Your task to perform on an android device: turn on sleep mode Image 0: 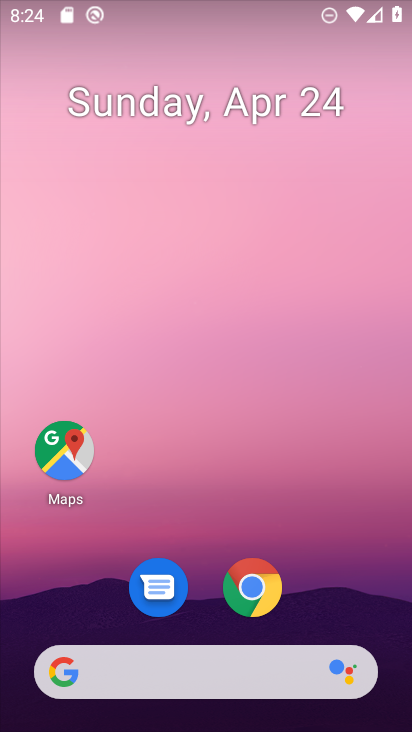
Step 0: drag from (354, 548) to (334, 255)
Your task to perform on an android device: turn on sleep mode Image 1: 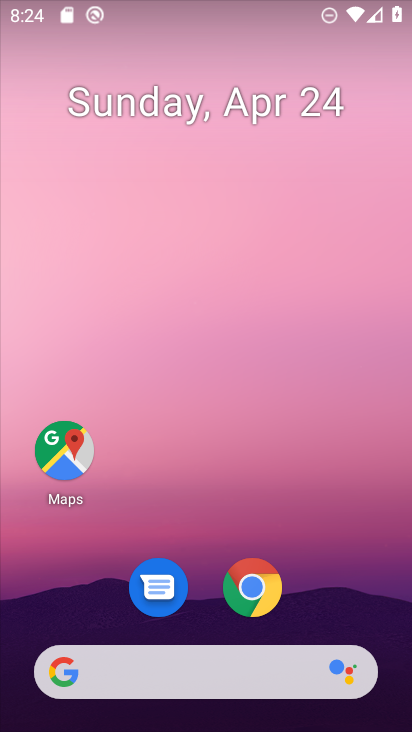
Step 1: drag from (369, 579) to (331, 119)
Your task to perform on an android device: turn on sleep mode Image 2: 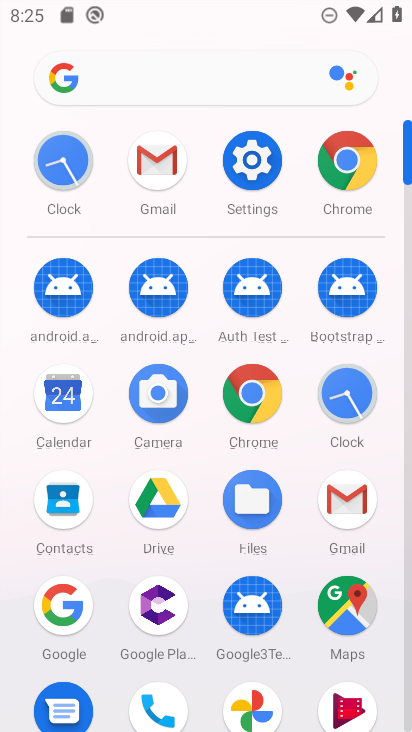
Step 2: click (254, 170)
Your task to perform on an android device: turn on sleep mode Image 3: 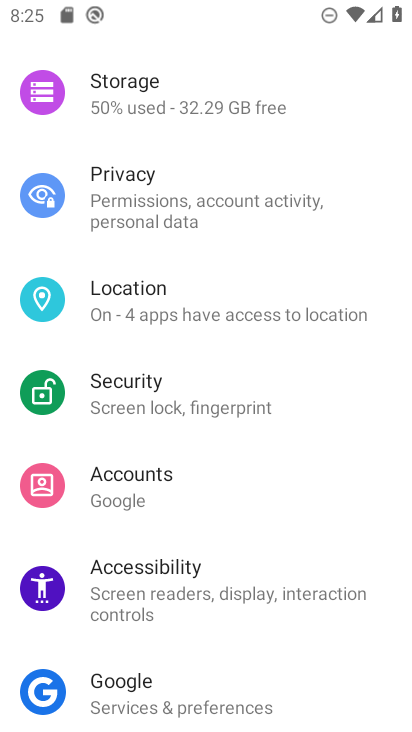
Step 3: drag from (335, 121) to (300, 534)
Your task to perform on an android device: turn on sleep mode Image 4: 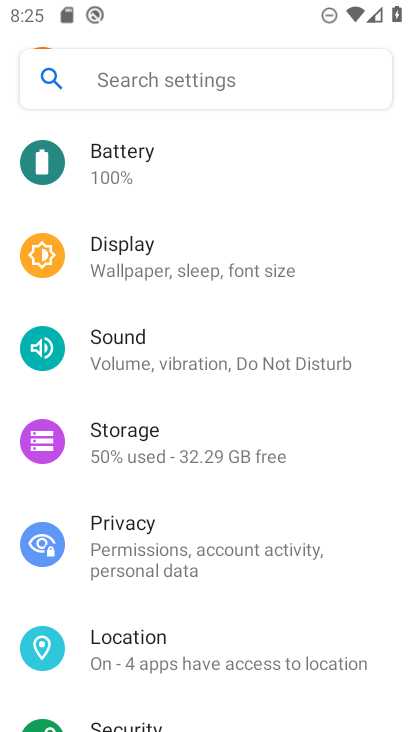
Step 4: click (210, 75)
Your task to perform on an android device: turn on sleep mode Image 5: 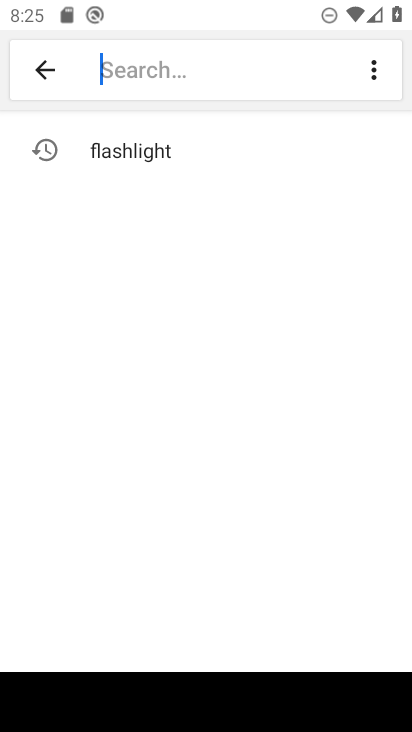
Step 5: type "sleep mode"
Your task to perform on an android device: turn on sleep mode Image 6: 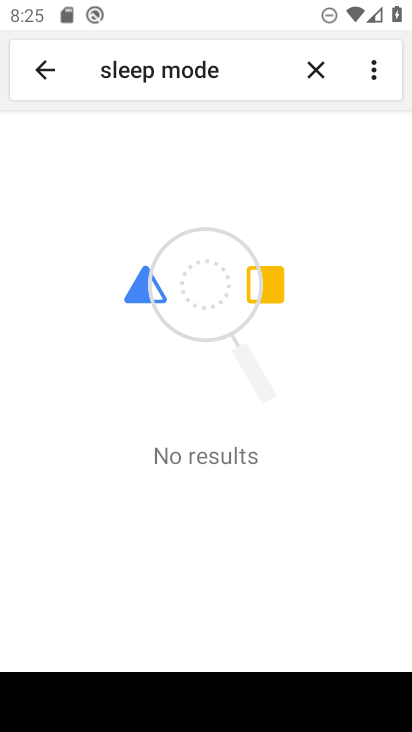
Step 6: task complete